Your task to perform on an android device: turn off smart reply in the gmail app Image 0: 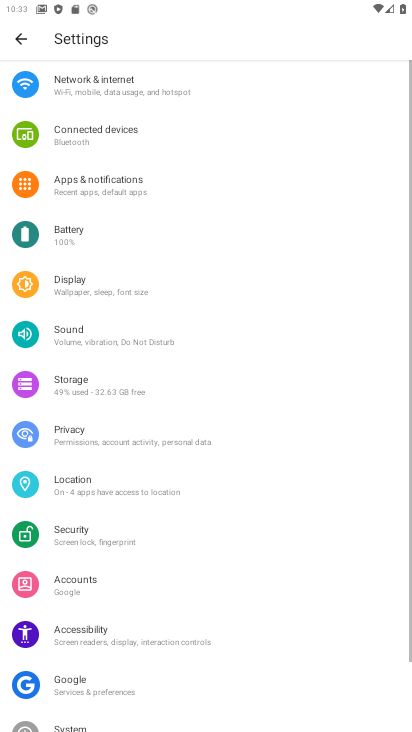
Step 0: press home button
Your task to perform on an android device: turn off smart reply in the gmail app Image 1: 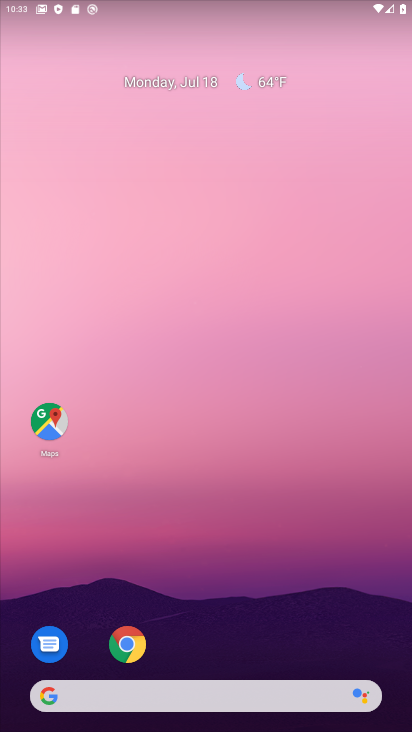
Step 1: drag from (260, 615) to (265, 154)
Your task to perform on an android device: turn off smart reply in the gmail app Image 2: 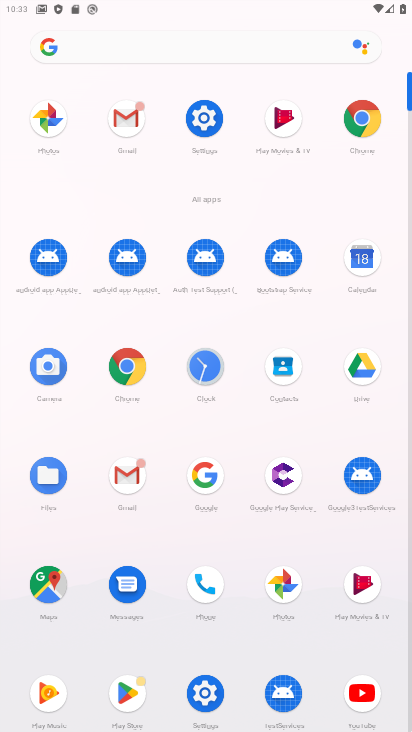
Step 2: click (130, 119)
Your task to perform on an android device: turn off smart reply in the gmail app Image 3: 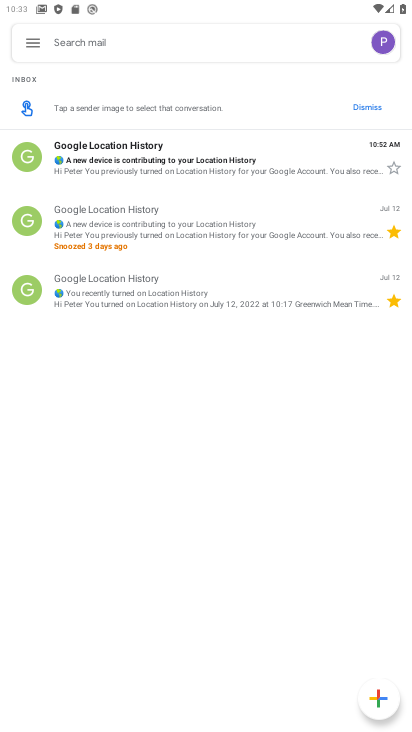
Step 3: click (32, 42)
Your task to perform on an android device: turn off smart reply in the gmail app Image 4: 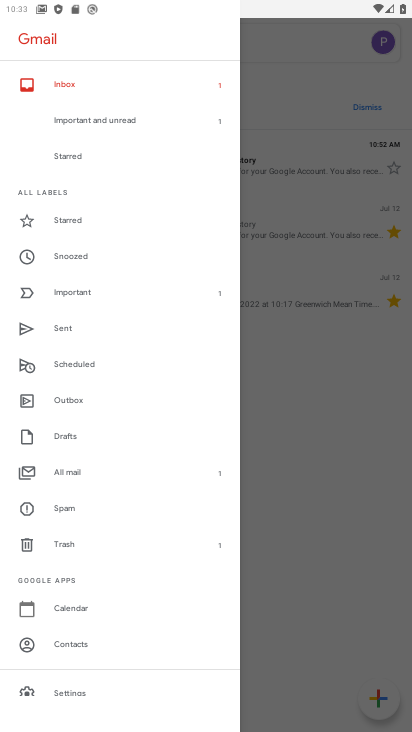
Step 4: click (85, 683)
Your task to perform on an android device: turn off smart reply in the gmail app Image 5: 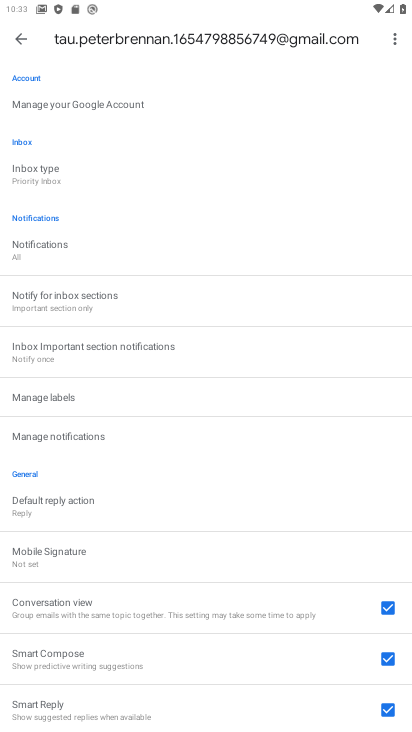
Step 5: click (380, 701)
Your task to perform on an android device: turn off smart reply in the gmail app Image 6: 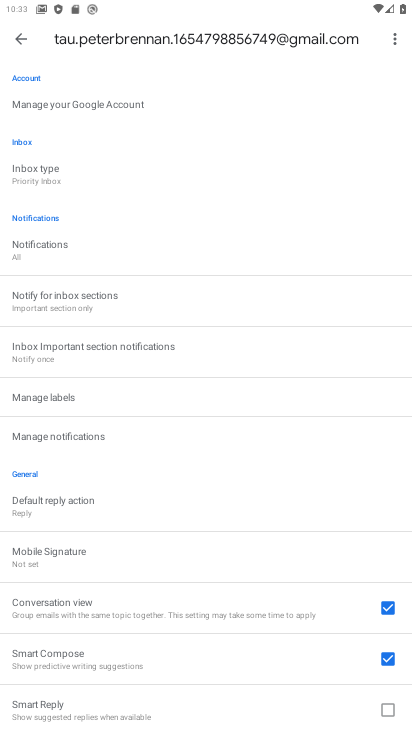
Step 6: task complete